Your task to perform on an android device: turn off javascript in the chrome app Image 0: 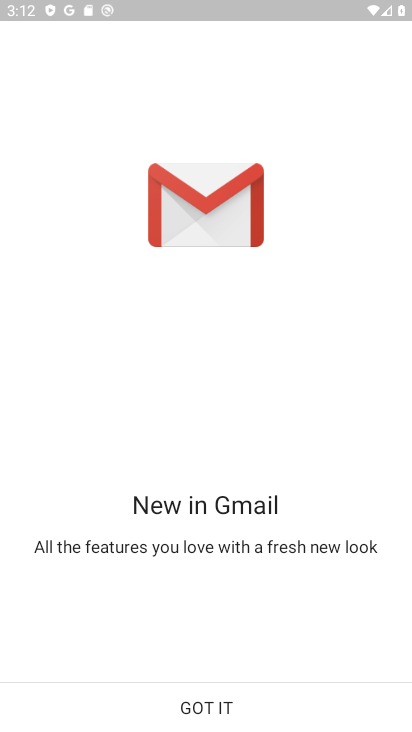
Step 0: press home button
Your task to perform on an android device: turn off javascript in the chrome app Image 1: 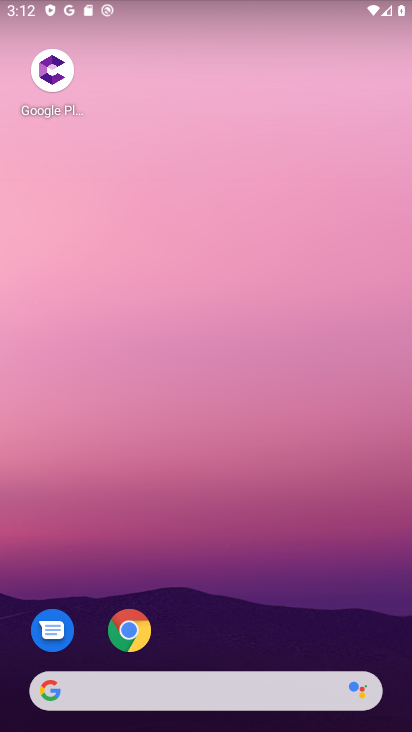
Step 1: click (144, 628)
Your task to perform on an android device: turn off javascript in the chrome app Image 2: 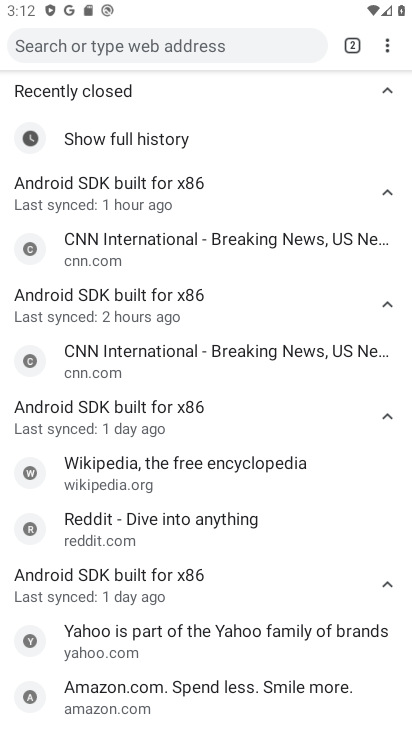
Step 2: click (383, 46)
Your task to perform on an android device: turn off javascript in the chrome app Image 3: 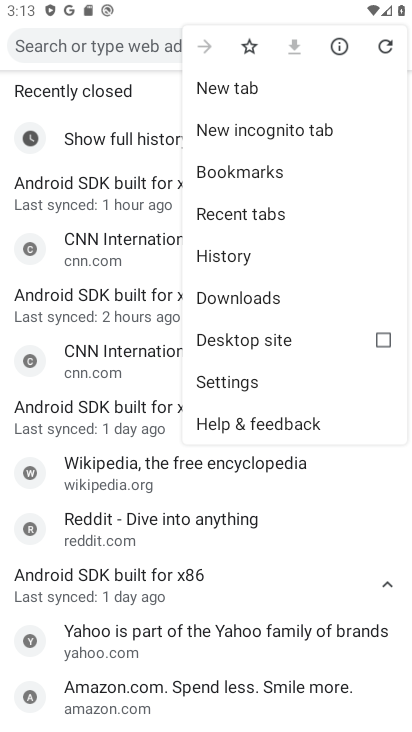
Step 3: click (227, 372)
Your task to perform on an android device: turn off javascript in the chrome app Image 4: 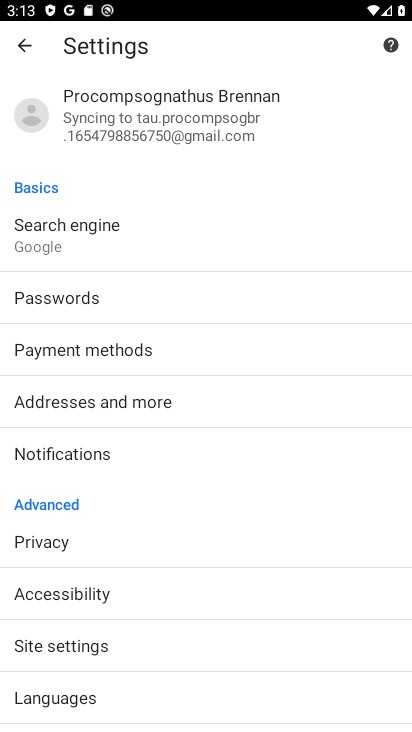
Step 4: click (42, 640)
Your task to perform on an android device: turn off javascript in the chrome app Image 5: 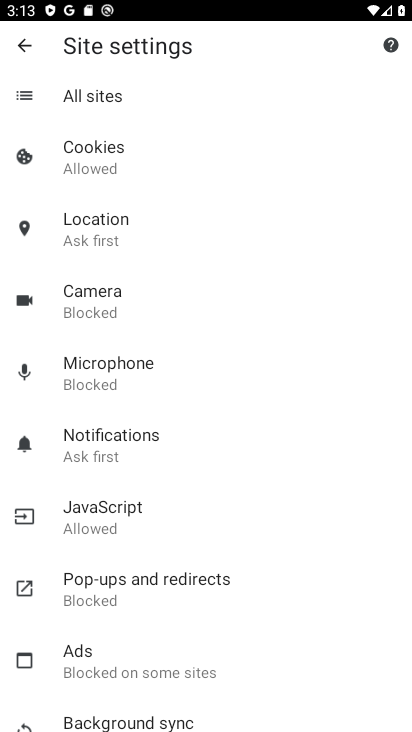
Step 5: click (92, 528)
Your task to perform on an android device: turn off javascript in the chrome app Image 6: 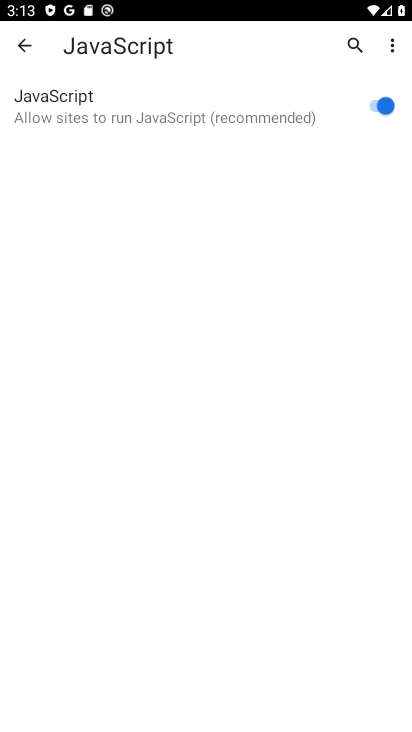
Step 6: click (375, 104)
Your task to perform on an android device: turn off javascript in the chrome app Image 7: 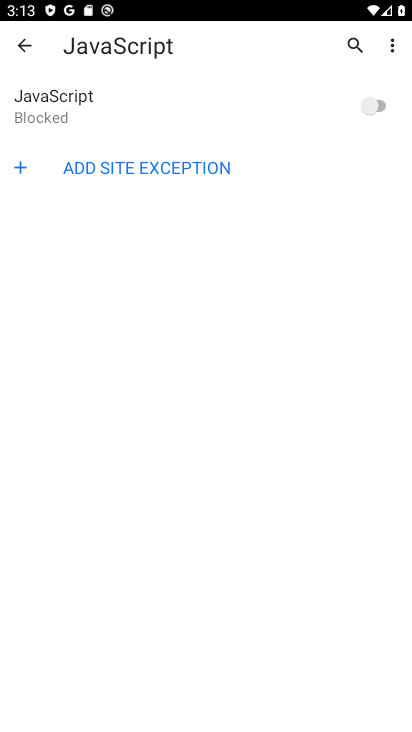
Step 7: task complete